Your task to perform on an android device: turn on notifications settings in the gmail app Image 0: 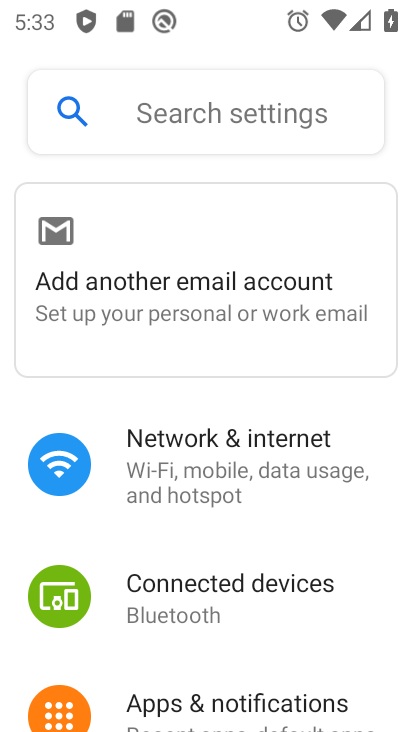
Step 0: click (293, 705)
Your task to perform on an android device: turn on notifications settings in the gmail app Image 1: 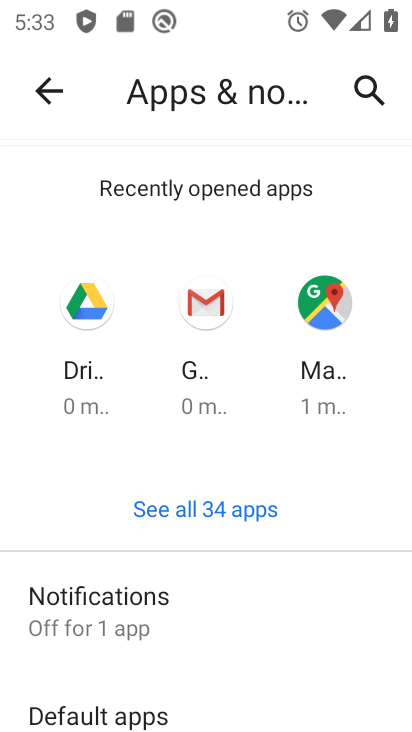
Step 1: click (53, 85)
Your task to perform on an android device: turn on notifications settings in the gmail app Image 2: 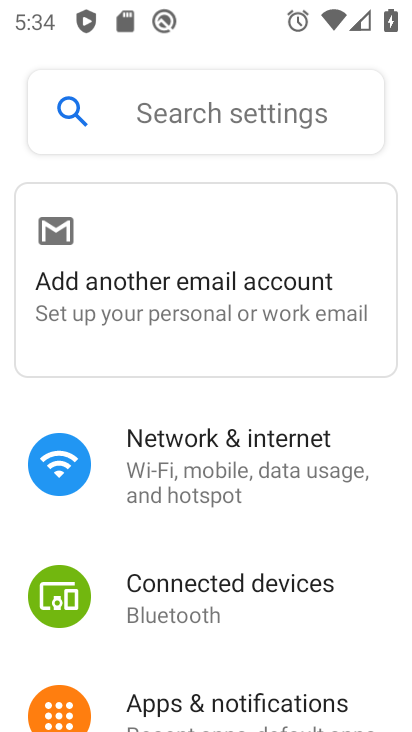
Step 2: press back button
Your task to perform on an android device: turn on notifications settings in the gmail app Image 3: 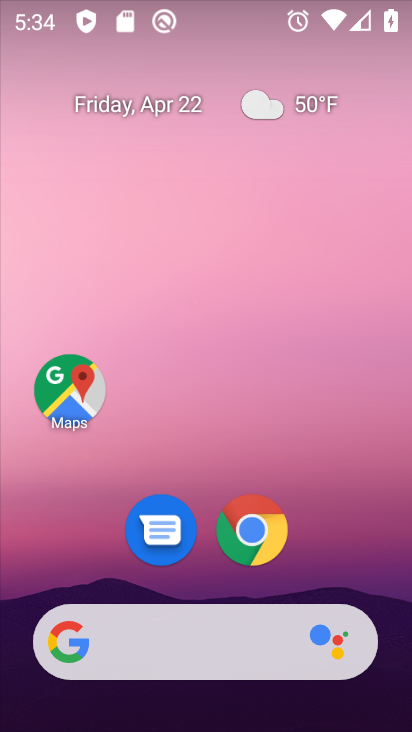
Step 3: drag from (348, 539) to (342, 210)
Your task to perform on an android device: turn on notifications settings in the gmail app Image 4: 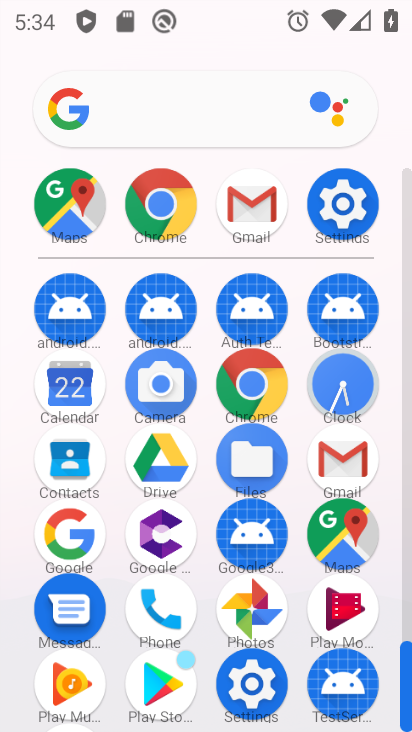
Step 4: click (339, 467)
Your task to perform on an android device: turn on notifications settings in the gmail app Image 5: 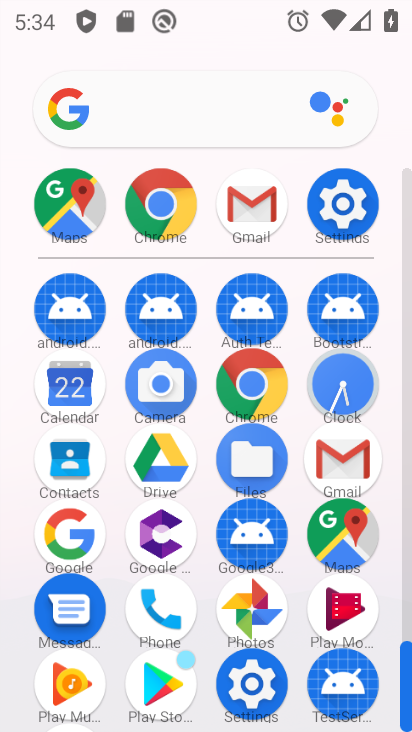
Step 5: click (339, 467)
Your task to perform on an android device: turn on notifications settings in the gmail app Image 6: 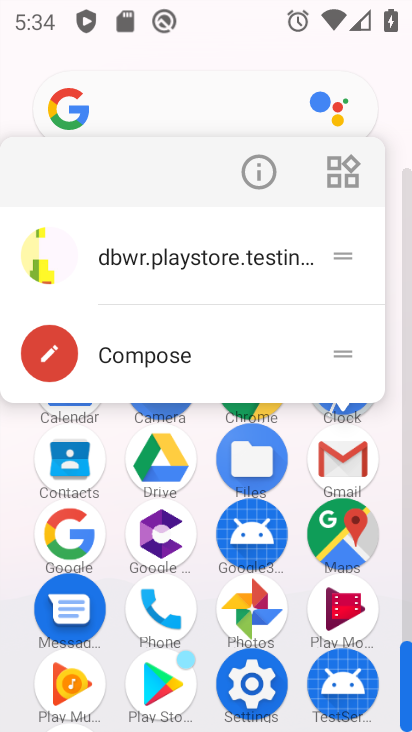
Step 6: click (268, 165)
Your task to perform on an android device: turn on notifications settings in the gmail app Image 7: 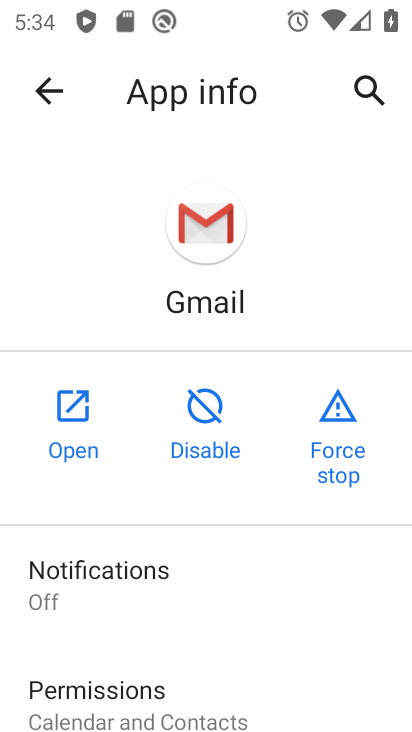
Step 7: click (90, 572)
Your task to perform on an android device: turn on notifications settings in the gmail app Image 8: 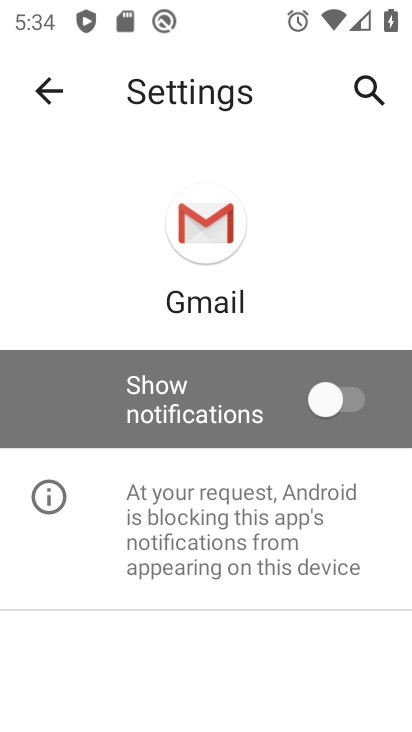
Step 8: drag from (318, 643) to (396, 236)
Your task to perform on an android device: turn on notifications settings in the gmail app Image 9: 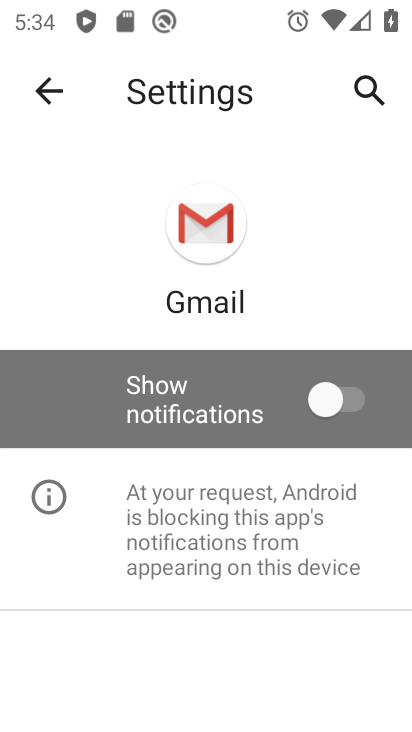
Step 9: drag from (317, 624) to (341, 244)
Your task to perform on an android device: turn on notifications settings in the gmail app Image 10: 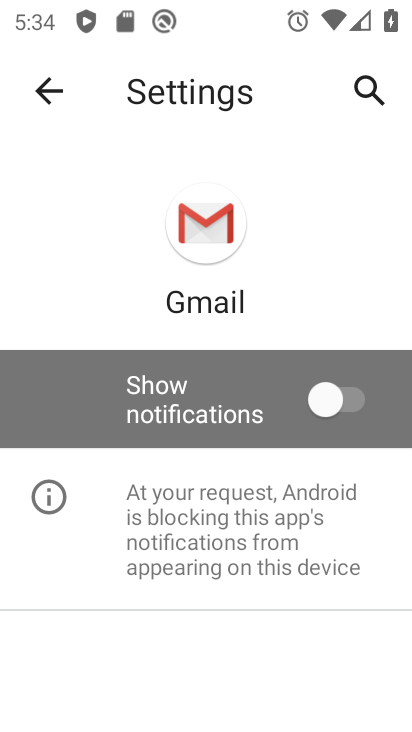
Step 10: click (348, 392)
Your task to perform on an android device: turn on notifications settings in the gmail app Image 11: 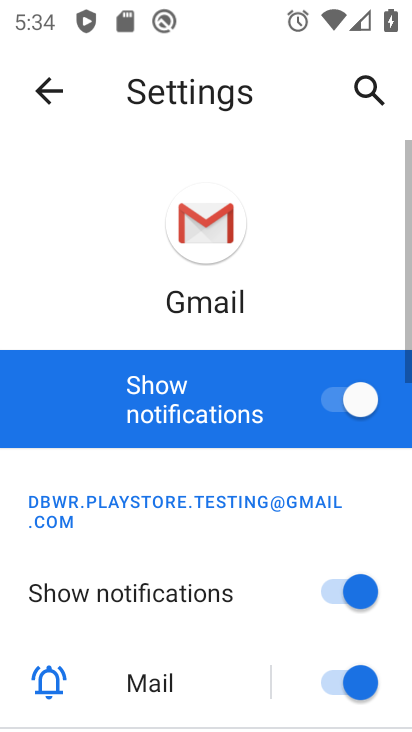
Step 11: task complete